Your task to perform on an android device: What's the weather going to be this weekend? Image 0: 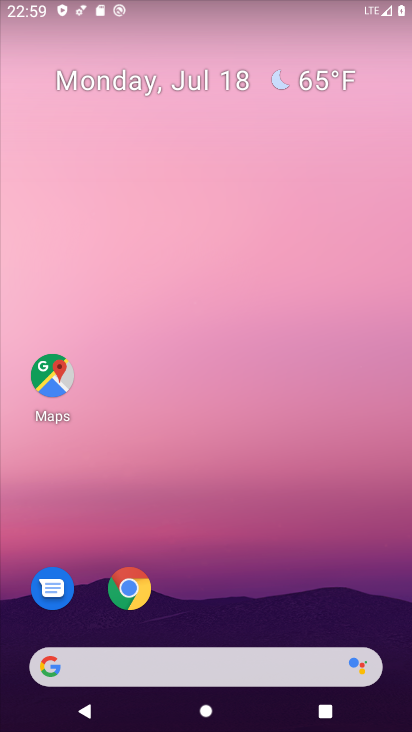
Step 0: click (54, 662)
Your task to perform on an android device: What's the weather going to be this weekend? Image 1: 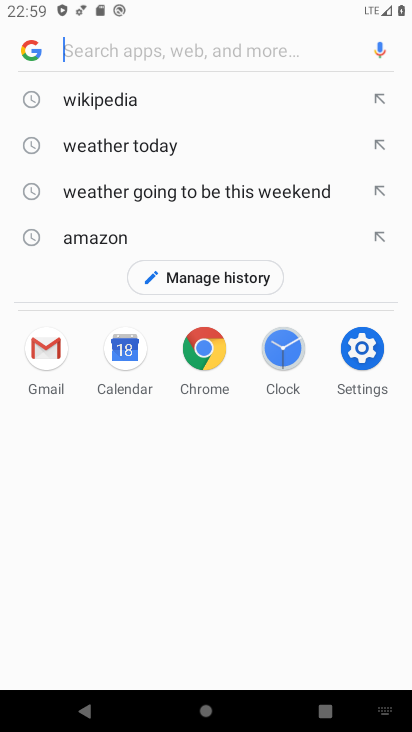
Step 1: click (247, 189)
Your task to perform on an android device: What's the weather going to be this weekend? Image 2: 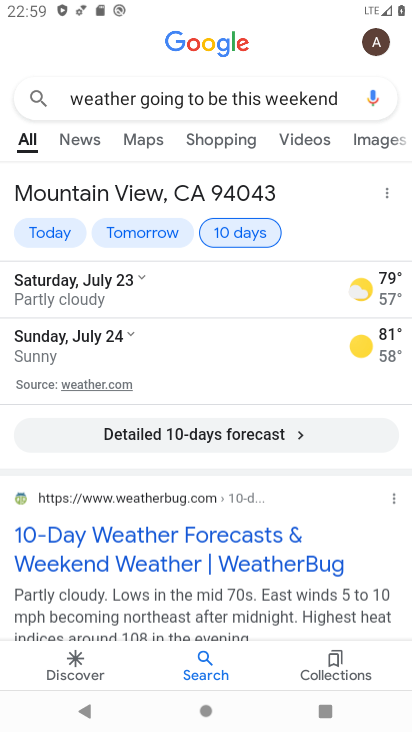
Step 2: task complete